Your task to perform on an android device: check the backup settings in the google photos Image 0: 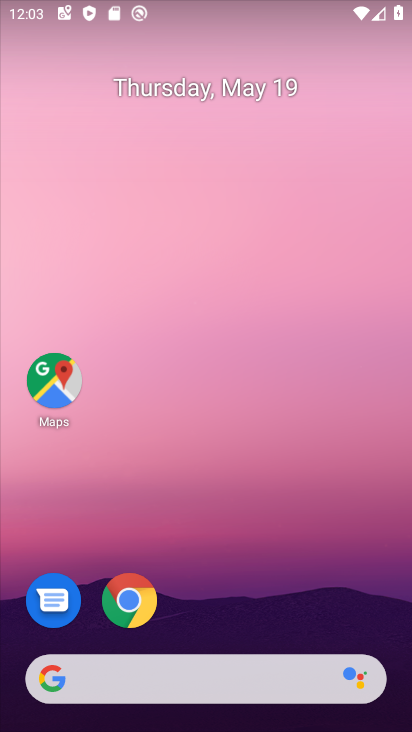
Step 0: drag from (260, 582) to (209, 22)
Your task to perform on an android device: check the backup settings in the google photos Image 1: 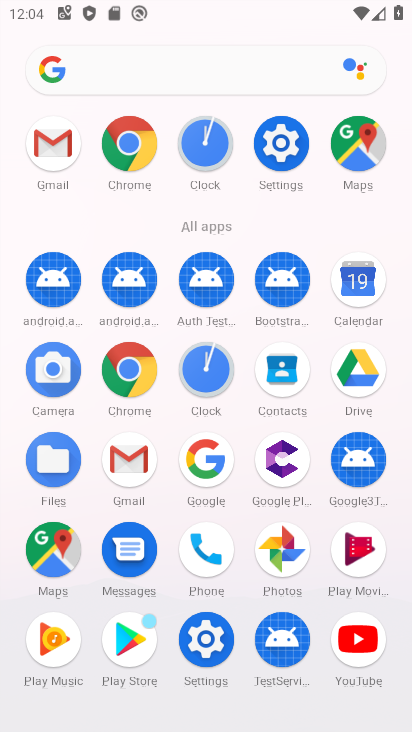
Step 1: click (280, 569)
Your task to perform on an android device: check the backup settings in the google photos Image 2: 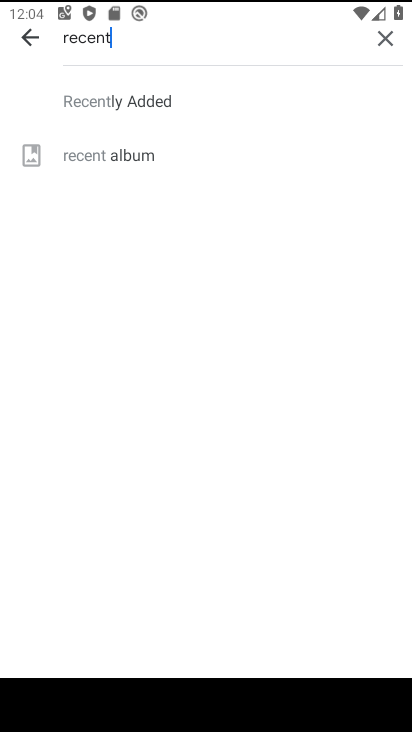
Step 2: click (379, 35)
Your task to perform on an android device: check the backup settings in the google photos Image 3: 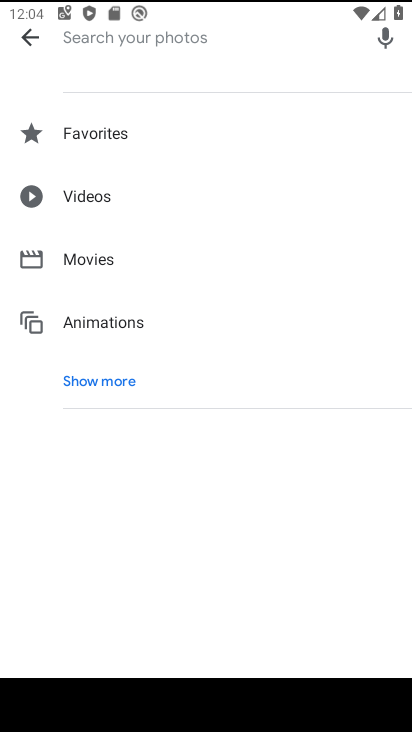
Step 3: click (21, 41)
Your task to perform on an android device: check the backup settings in the google photos Image 4: 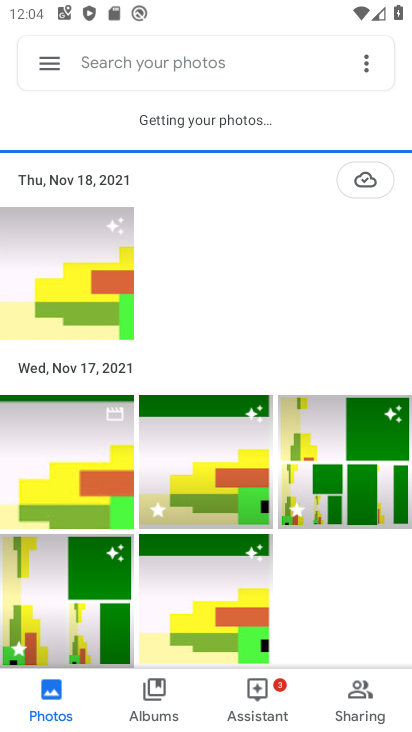
Step 4: click (32, 67)
Your task to perform on an android device: check the backup settings in the google photos Image 5: 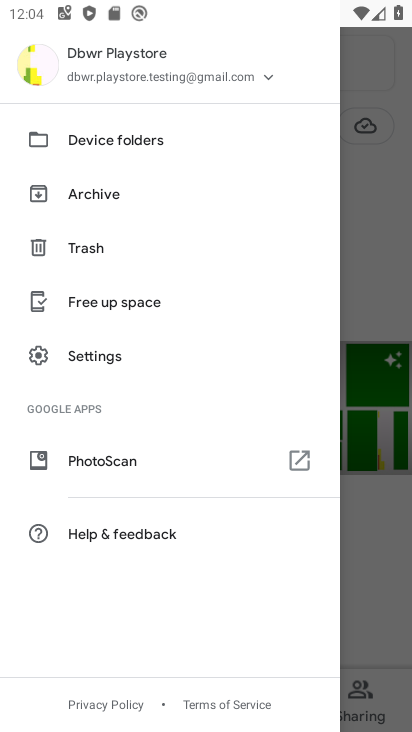
Step 5: click (142, 354)
Your task to perform on an android device: check the backup settings in the google photos Image 6: 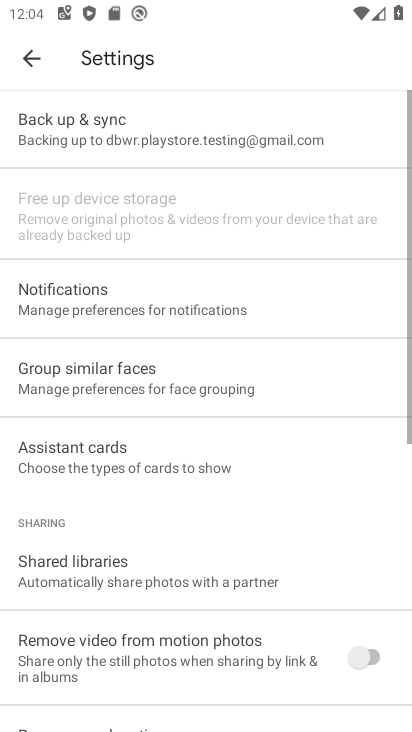
Step 6: click (160, 136)
Your task to perform on an android device: check the backup settings in the google photos Image 7: 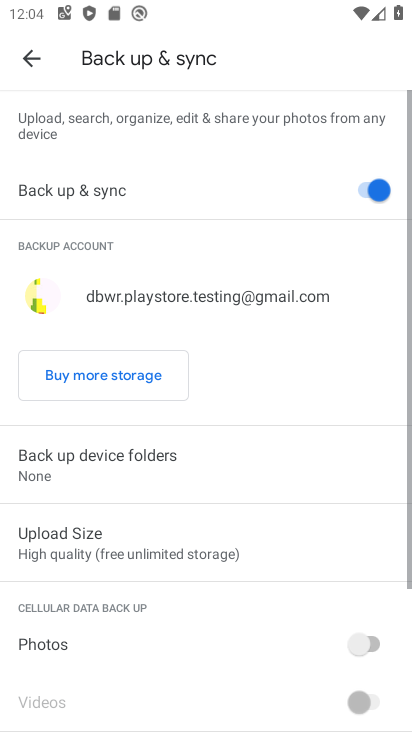
Step 7: task complete